Your task to perform on an android device: Go to battery settings Image 0: 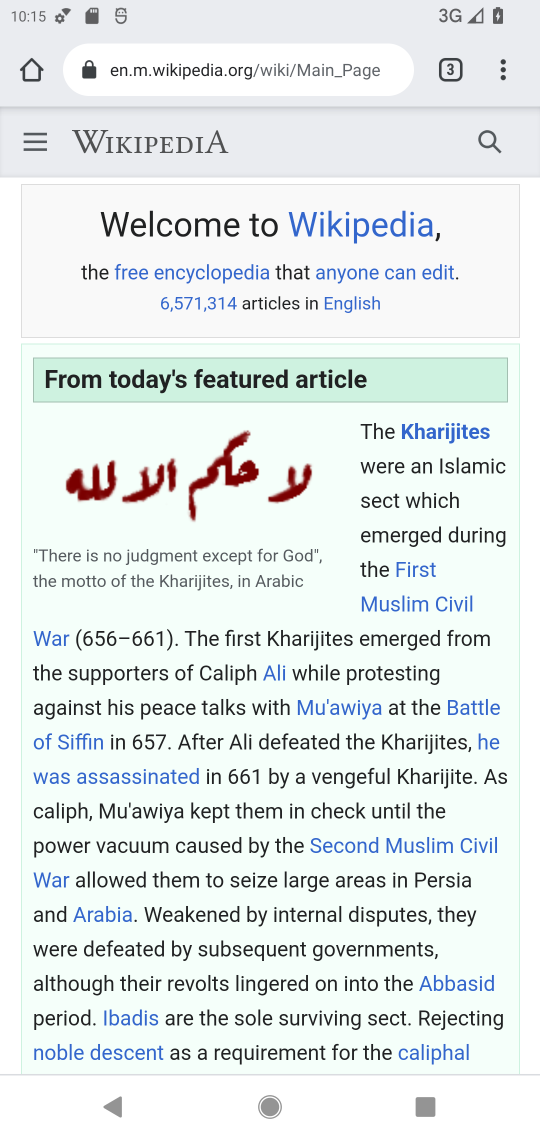
Step 0: drag from (197, 7) to (254, 946)
Your task to perform on an android device: Go to battery settings Image 1: 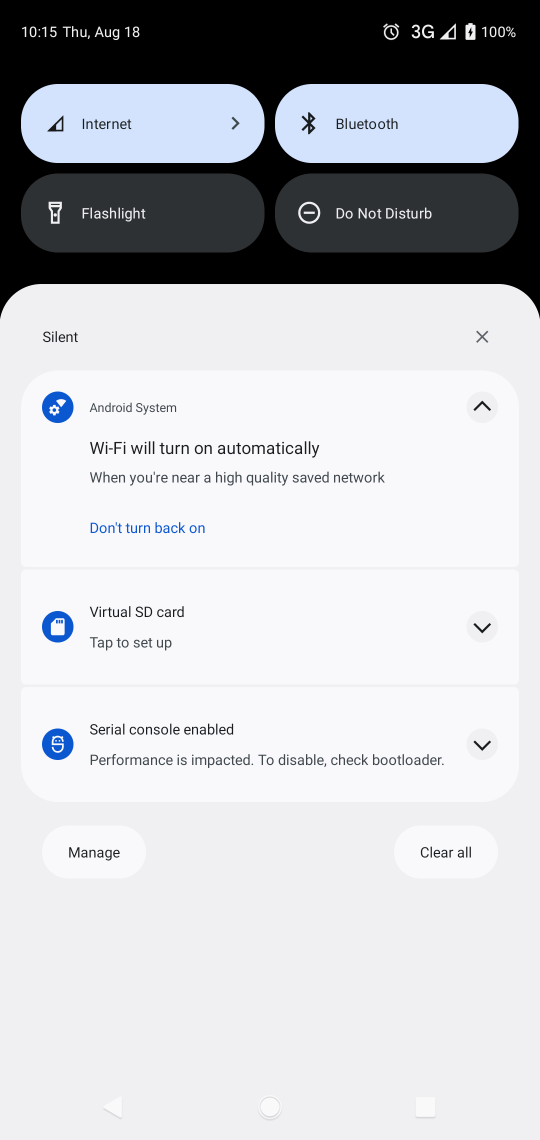
Step 1: drag from (278, 57) to (424, 1025)
Your task to perform on an android device: Go to battery settings Image 2: 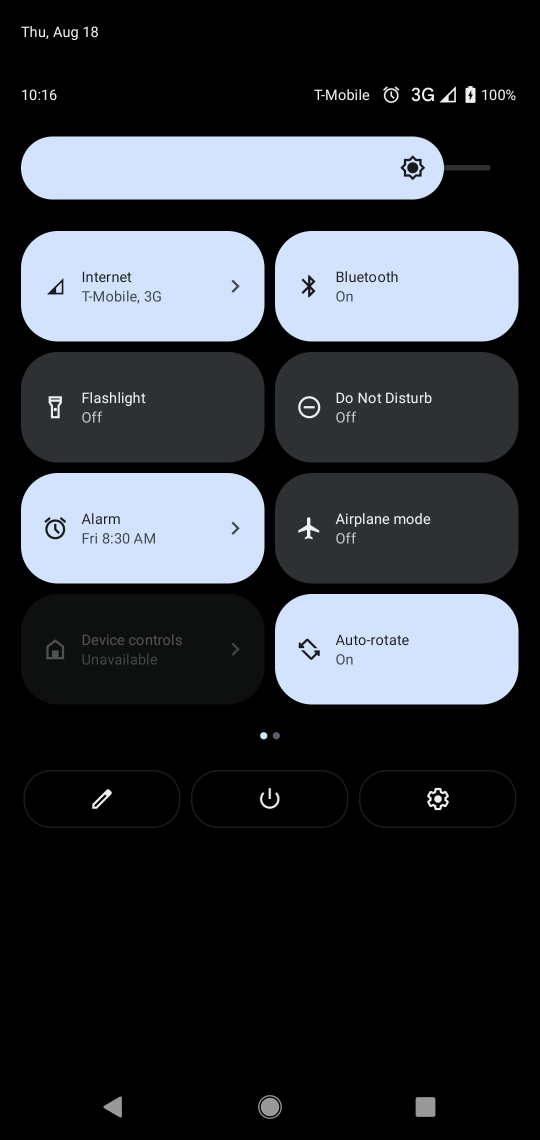
Step 2: click (450, 798)
Your task to perform on an android device: Go to battery settings Image 3: 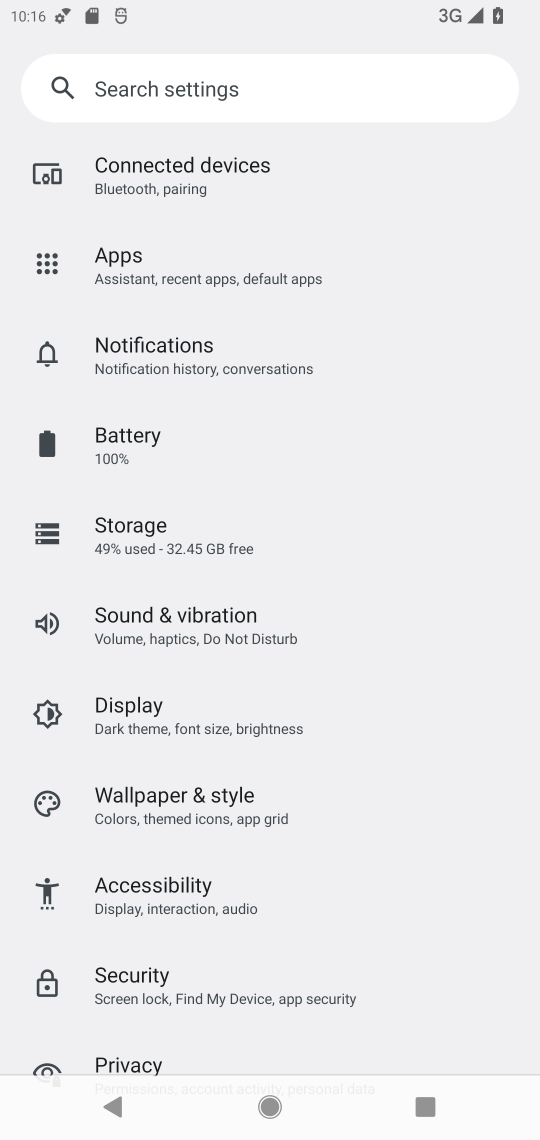
Step 3: click (103, 453)
Your task to perform on an android device: Go to battery settings Image 4: 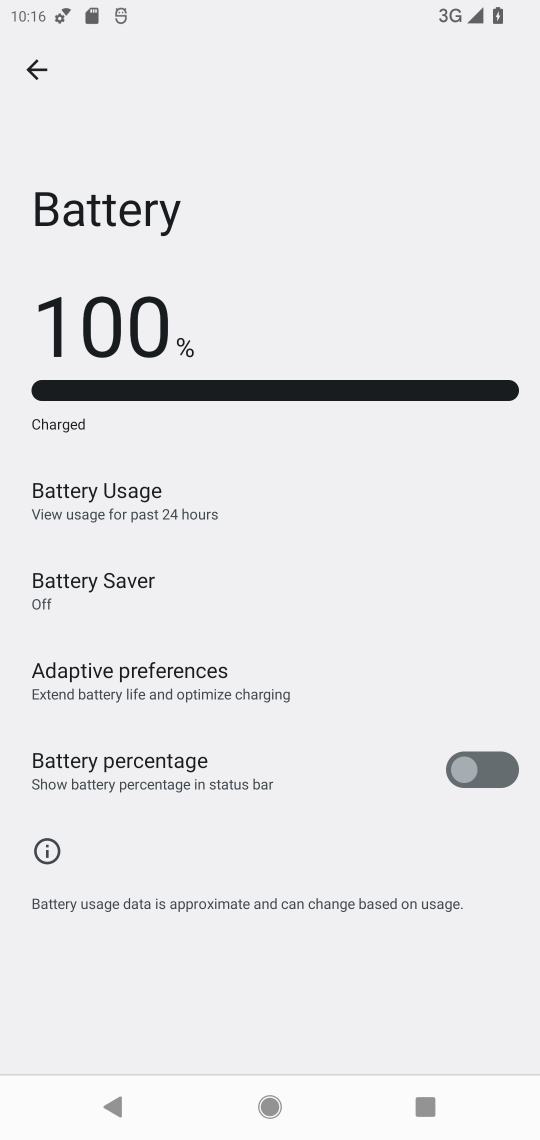
Step 4: task complete